Your task to perform on an android device: Search for pizza restaurants on Maps Image 0: 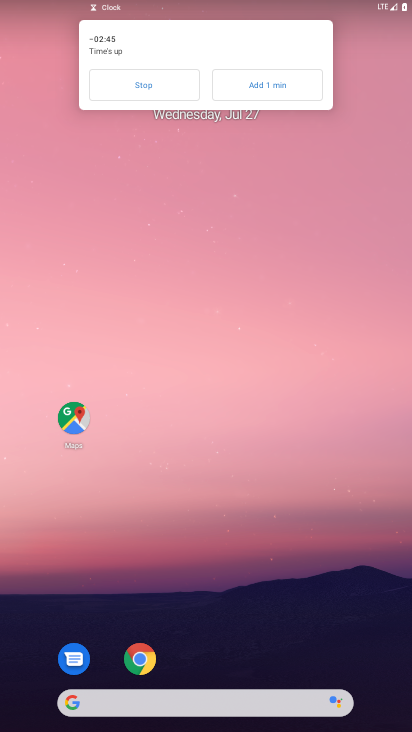
Step 0: drag from (201, 729) to (196, 201)
Your task to perform on an android device: Search for pizza restaurants on Maps Image 1: 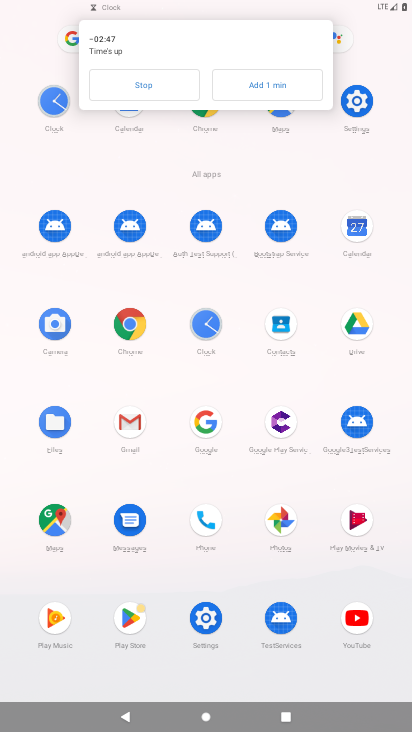
Step 1: click (58, 514)
Your task to perform on an android device: Search for pizza restaurants on Maps Image 2: 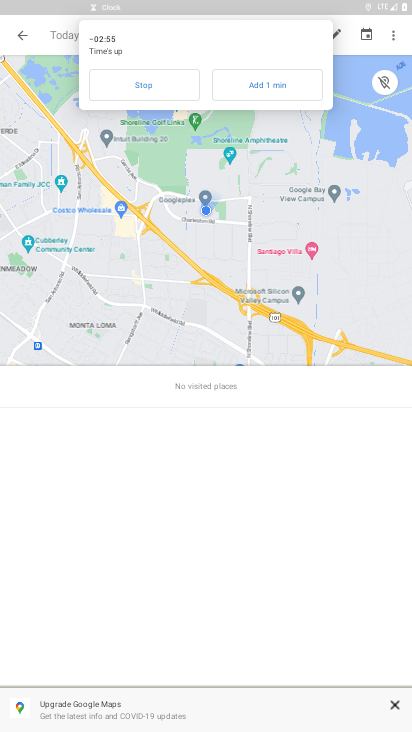
Step 2: click (140, 84)
Your task to perform on an android device: Search for pizza restaurants on Maps Image 3: 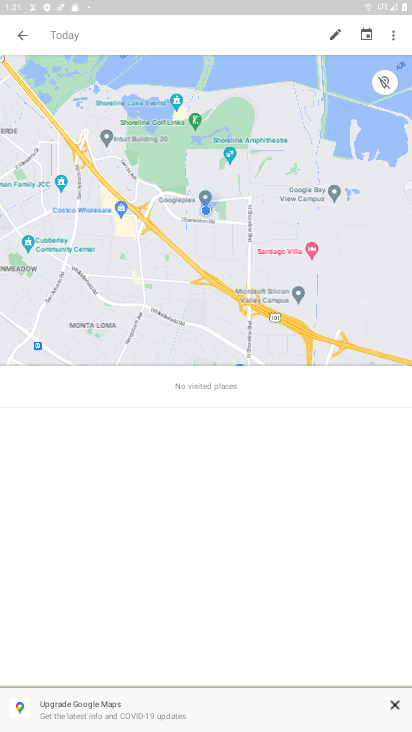
Step 3: click (21, 28)
Your task to perform on an android device: Search for pizza restaurants on Maps Image 4: 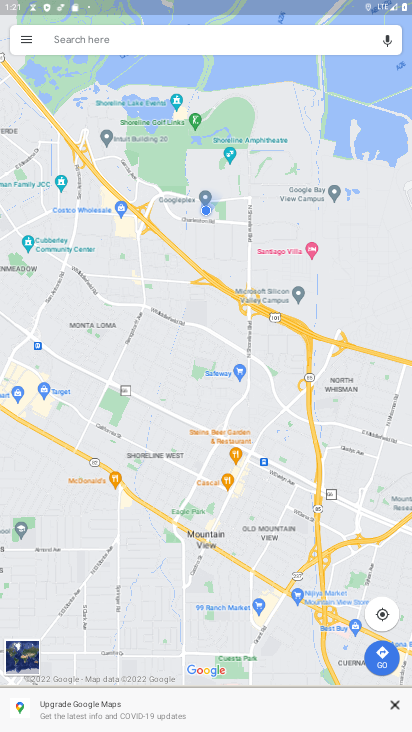
Step 4: click (121, 36)
Your task to perform on an android device: Search for pizza restaurants on Maps Image 5: 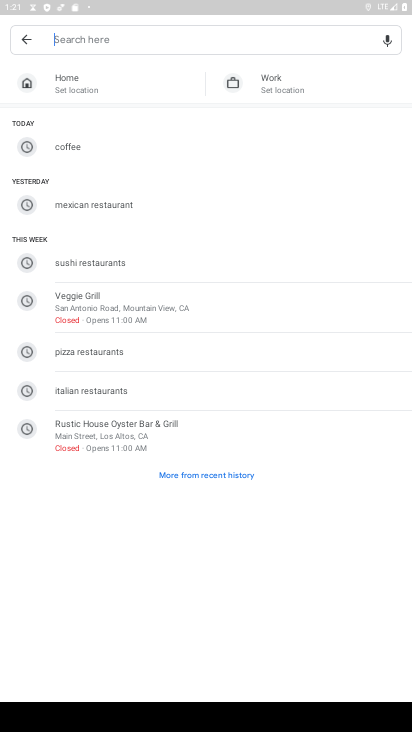
Step 5: type "Pizza restaurants"
Your task to perform on an android device: Search for pizza restaurants on Maps Image 6: 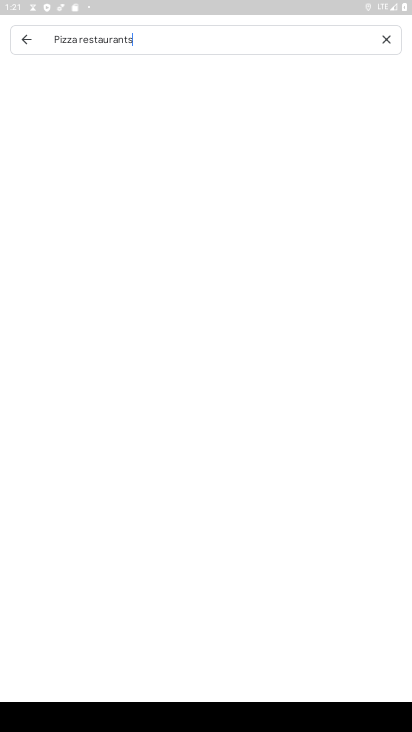
Step 6: type ""
Your task to perform on an android device: Search for pizza restaurants on Maps Image 7: 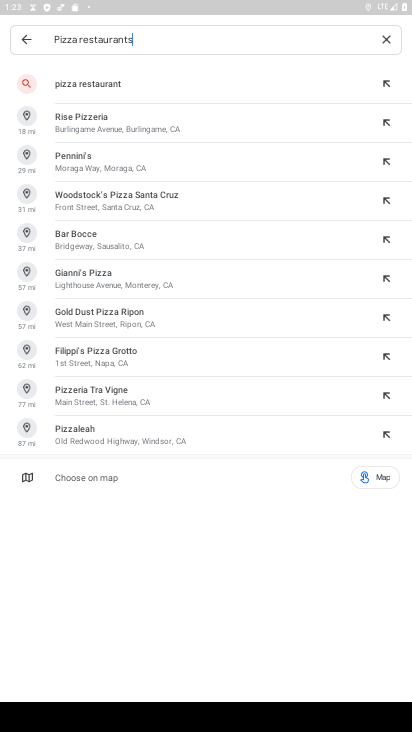
Step 7: click (109, 83)
Your task to perform on an android device: Search for pizza restaurants on Maps Image 8: 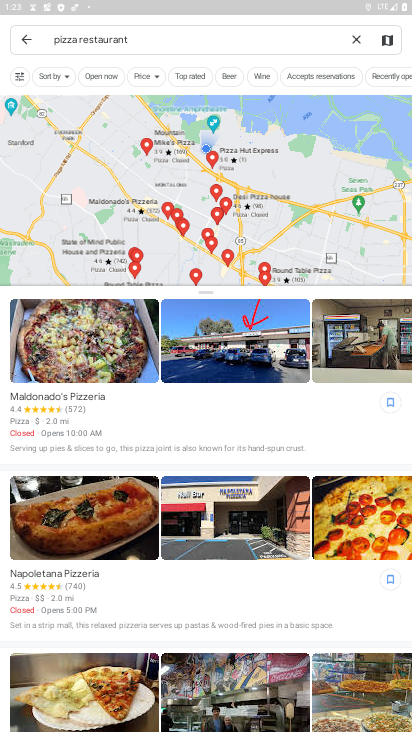
Step 8: task complete